Your task to perform on an android device: Open the calendar and show me this week's events? Image 0: 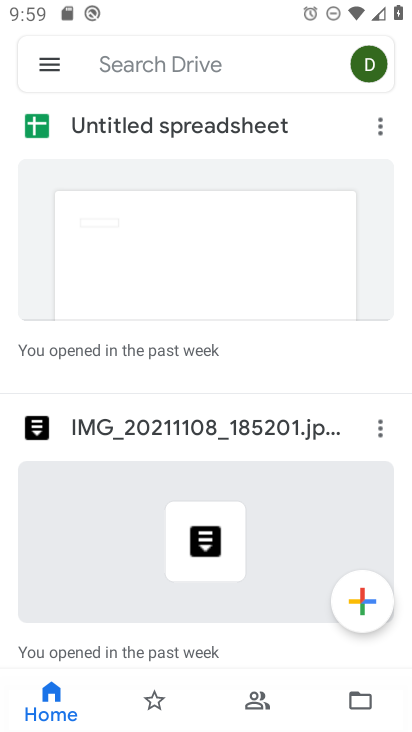
Step 0: press home button
Your task to perform on an android device: Open the calendar and show me this week's events? Image 1: 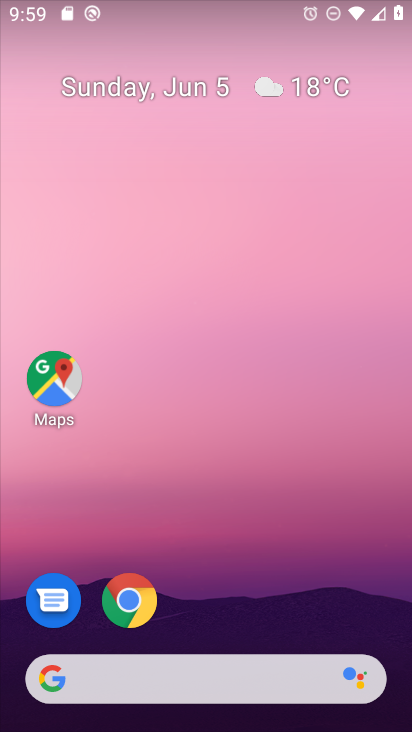
Step 1: drag from (191, 557) to (175, 2)
Your task to perform on an android device: Open the calendar and show me this week's events? Image 2: 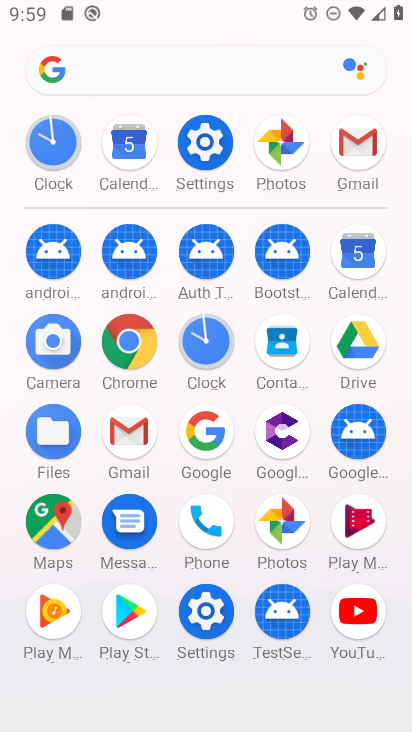
Step 2: click (134, 150)
Your task to perform on an android device: Open the calendar and show me this week's events? Image 3: 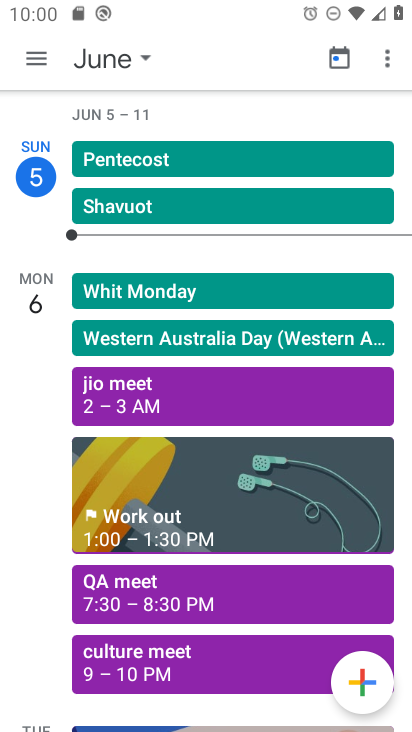
Step 3: click (39, 51)
Your task to perform on an android device: Open the calendar and show me this week's events? Image 4: 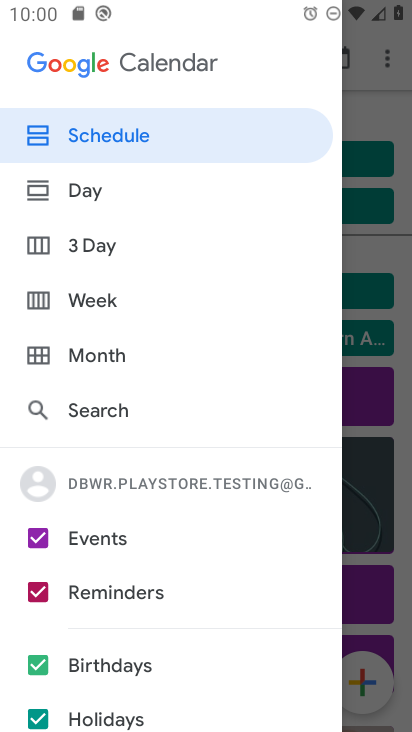
Step 4: click (74, 294)
Your task to perform on an android device: Open the calendar and show me this week's events? Image 5: 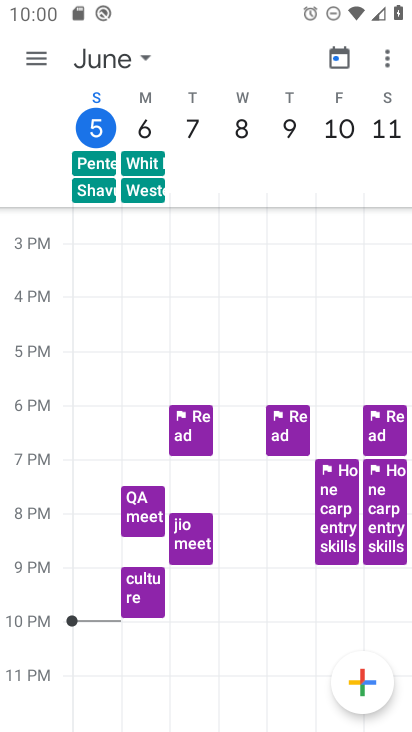
Step 5: task complete